Your task to perform on an android device: turn on the 12-hour format for clock Image 0: 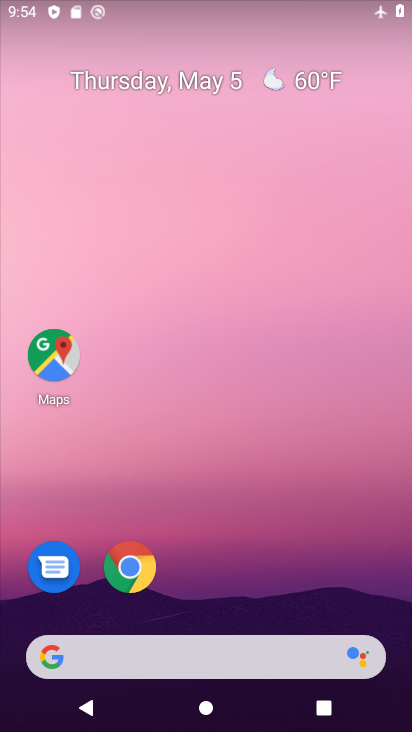
Step 0: drag from (228, 606) to (184, 152)
Your task to perform on an android device: turn on the 12-hour format for clock Image 1: 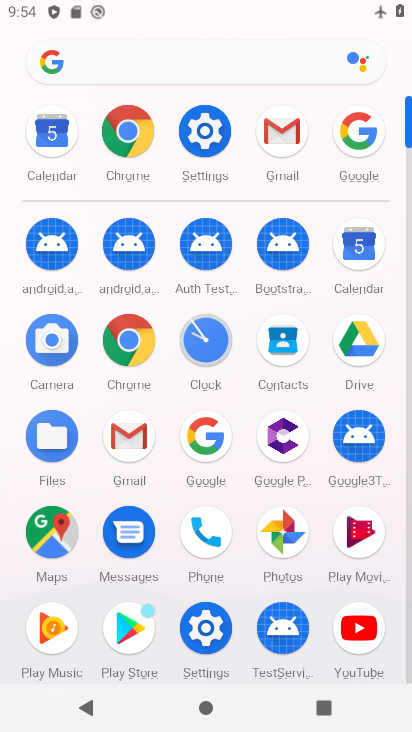
Step 1: click (215, 348)
Your task to perform on an android device: turn on the 12-hour format for clock Image 2: 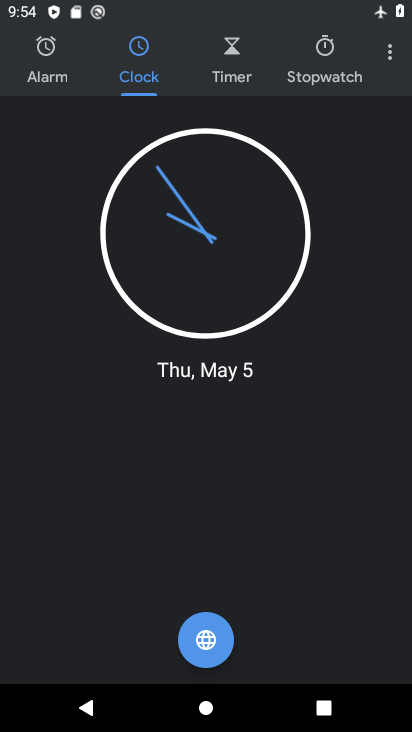
Step 2: click (395, 58)
Your task to perform on an android device: turn on the 12-hour format for clock Image 3: 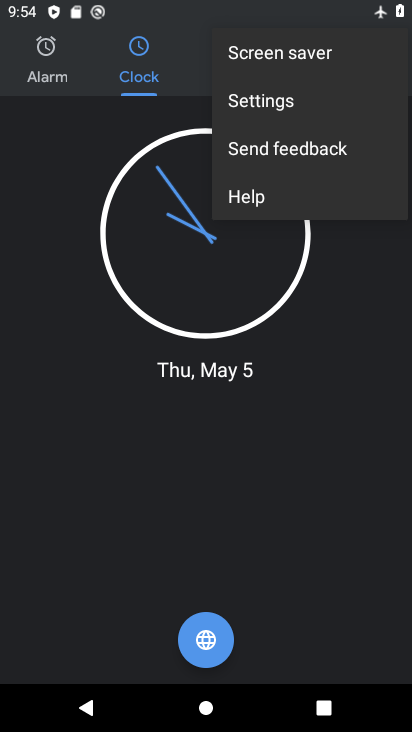
Step 3: click (257, 111)
Your task to perform on an android device: turn on the 12-hour format for clock Image 4: 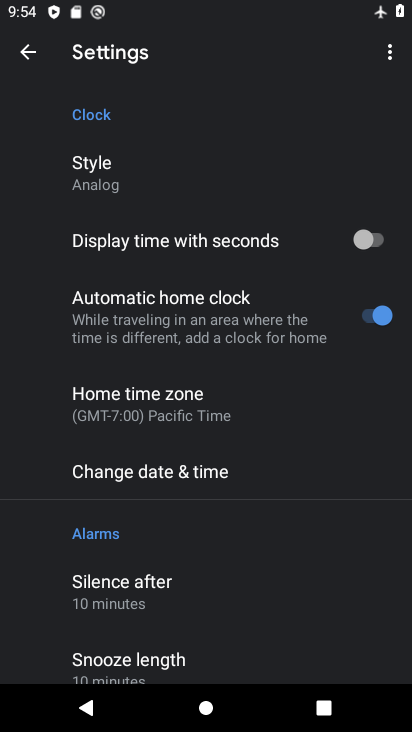
Step 4: click (172, 472)
Your task to perform on an android device: turn on the 12-hour format for clock Image 5: 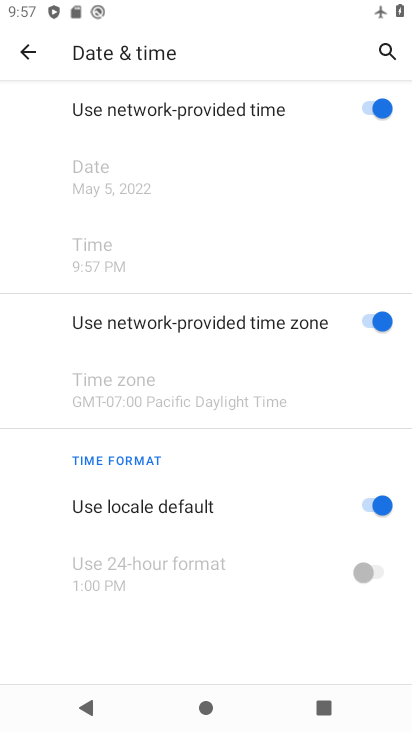
Step 5: task complete